Your task to perform on an android device: Open network settings Image 0: 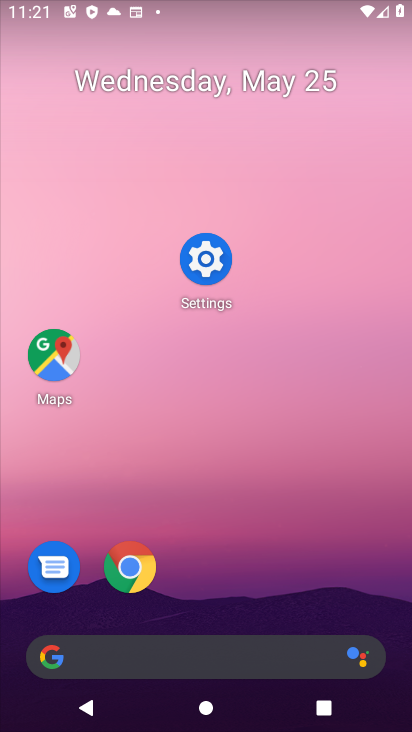
Step 0: click (207, 306)
Your task to perform on an android device: Open network settings Image 1: 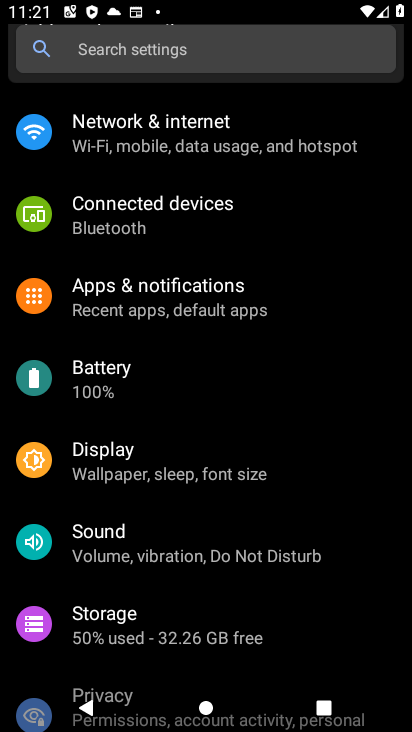
Step 1: click (184, 146)
Your task to perform on an android device: Open network settings Image 2: 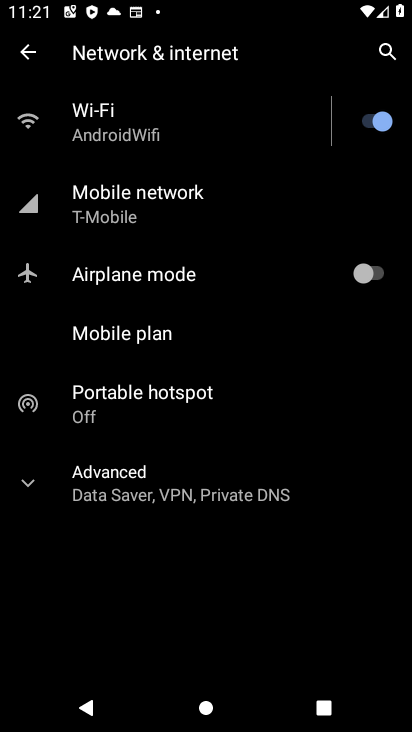
Step 2: task complete